Your task to perform on an android device: clear history in the chrome app Image 0: 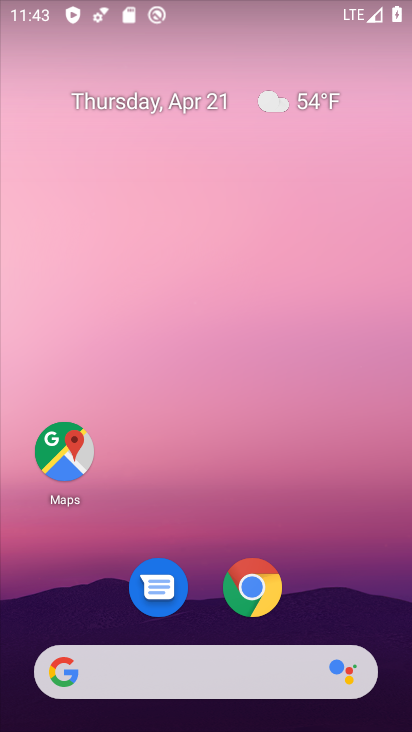
Step 0: click (249, 584)
Your task to perform on an android device: clear history in the chrome app Image 1: 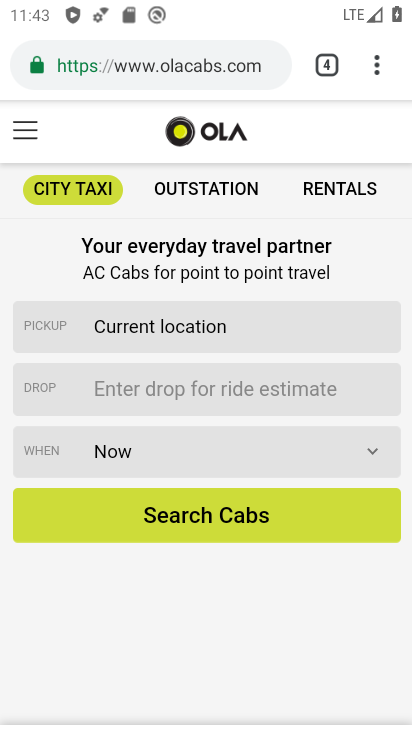
Step 1: drag from (377, 61) to (154, 449)
Your task to perform on an android device: clear history in the chrome app Image 2: 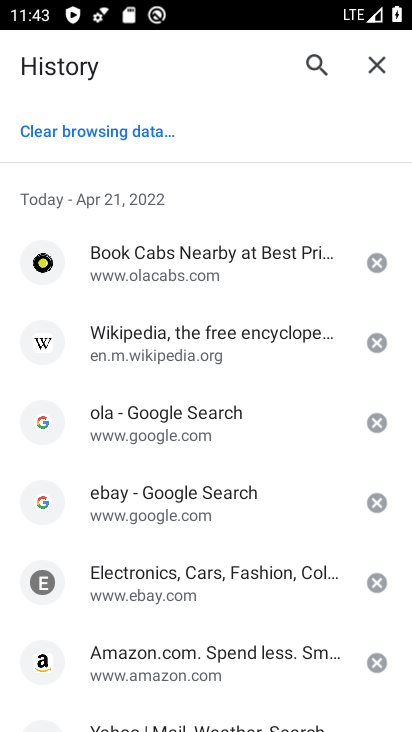
Step 2: click (112, 121)
Your task to perform on an android device: clear history in the chrome app Image 3: 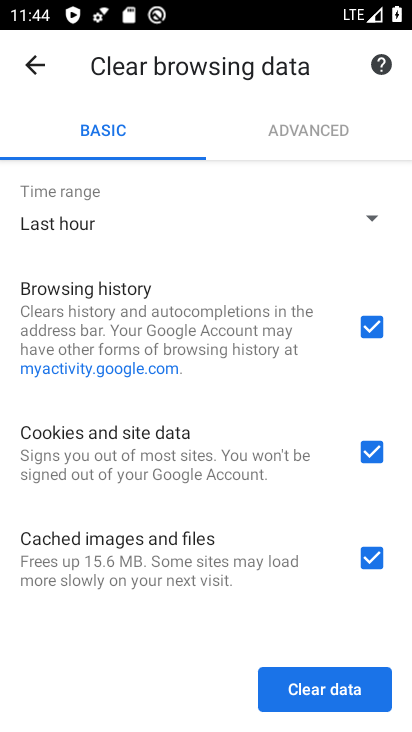
Step 3: click (311, 698)
Your task to perform on an android device: clear history in the chrome app Image 4: 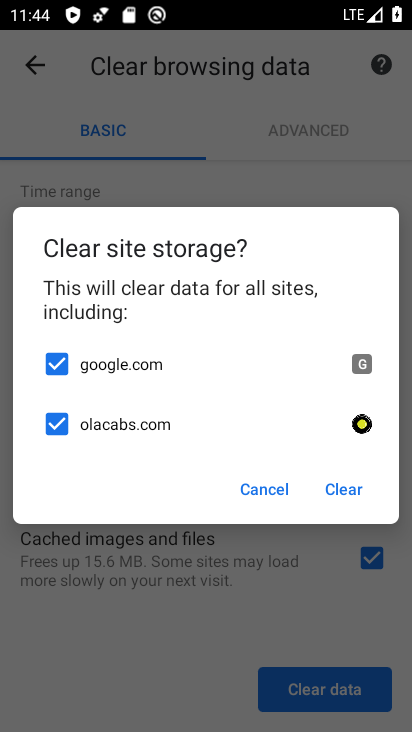
Step 4: click (348, 493)
Your task to perform on an android device: clear history in the chrome app Image 5: 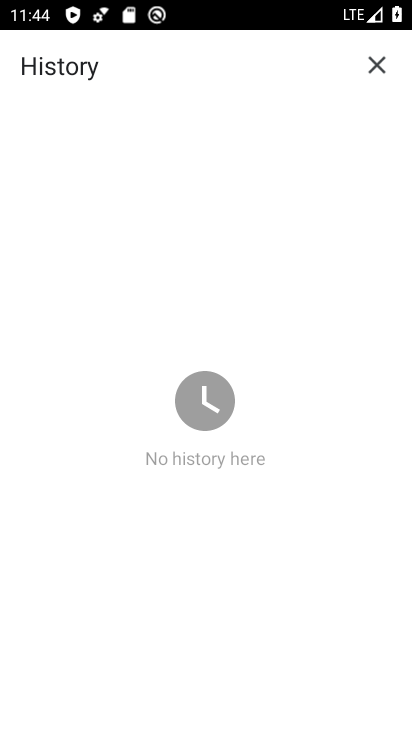
Step 5: task complete